Your task to perform on an android device: Go to sound settings Image 0: 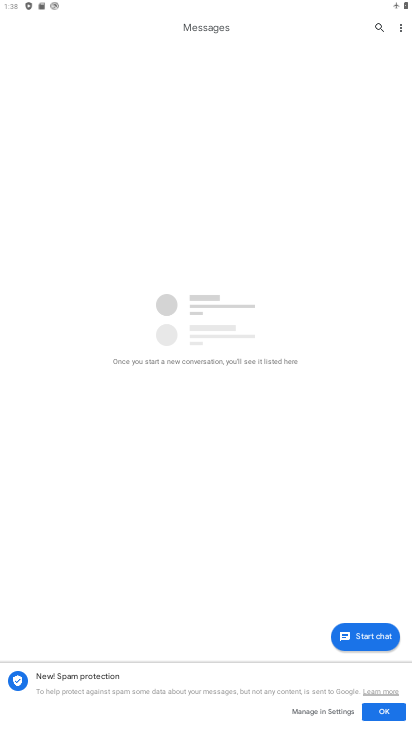
Step 0: press home button
Your task to perform on an android device: Go to sound settings Image 1: 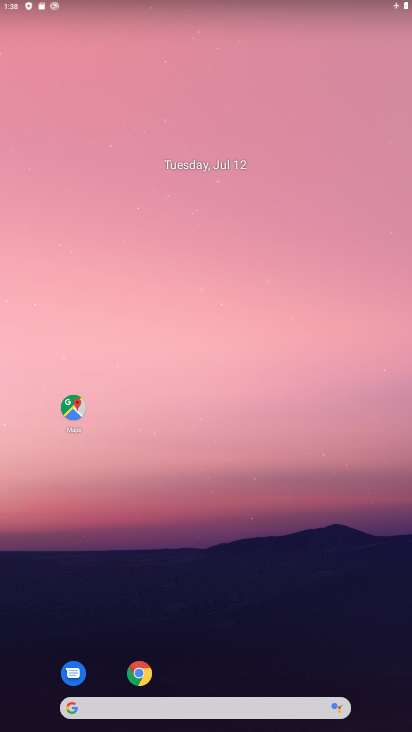
Step 1: drag from (295, 646) to (360, 141)
Your task to perform on an android device: Go to sound settings Image 2: 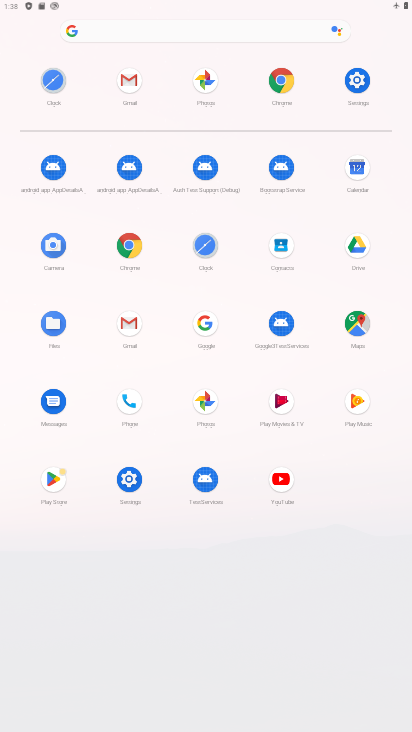
Step 2: click (356, 71)
Your task to perform on an android device: Go to sound settings Image 3: 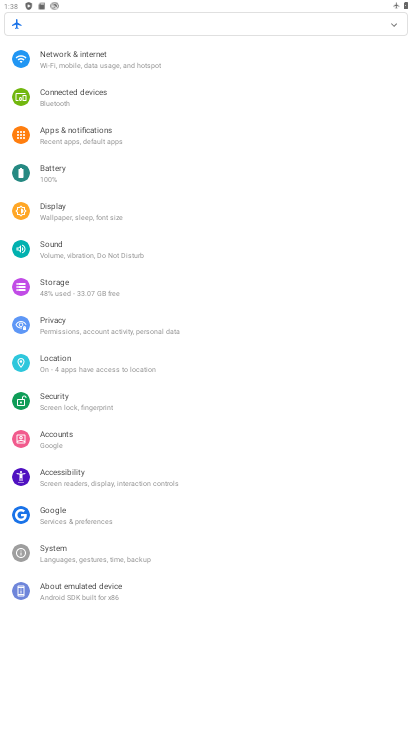
Step 3: click (77, 250)
Your task to perform on an android device: Go to sound settings Image 4: 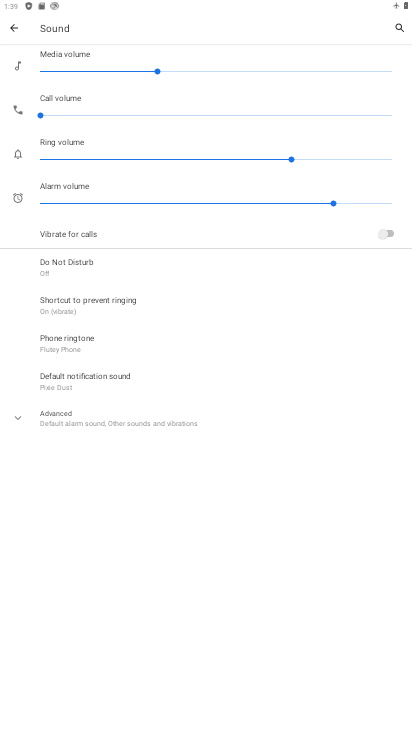
Step 4: task complete